Your task to perform on an android device: change text size in settings app Image 0: 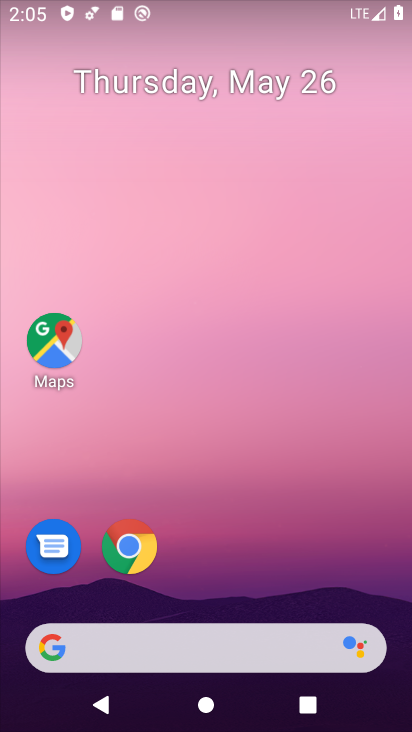
Step 0: drag from (260, 465) to (195, 2)
Your task to perform on an android device: change text size in settings app Image 1: 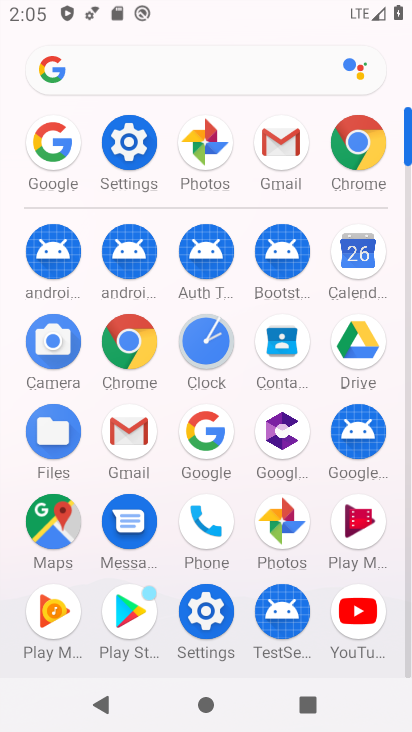
Step 1: click (227, 616)
Your task to perform on an android device: change text size in settings app Image 2: 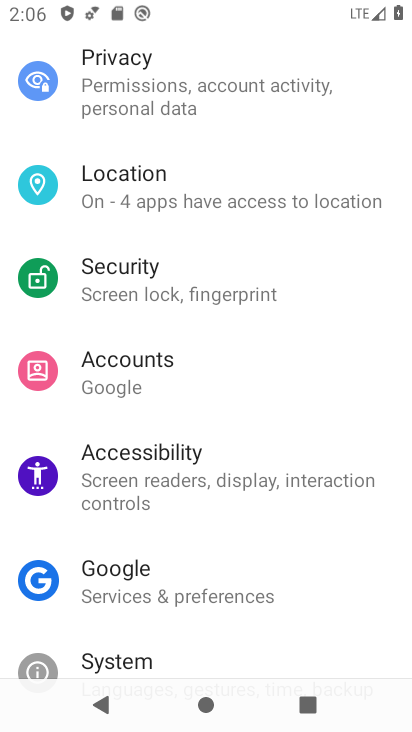
Step 2: drag from (250, 168) to (225, 728)
Your task to perform on an android device: change text size in settings app Image 3: 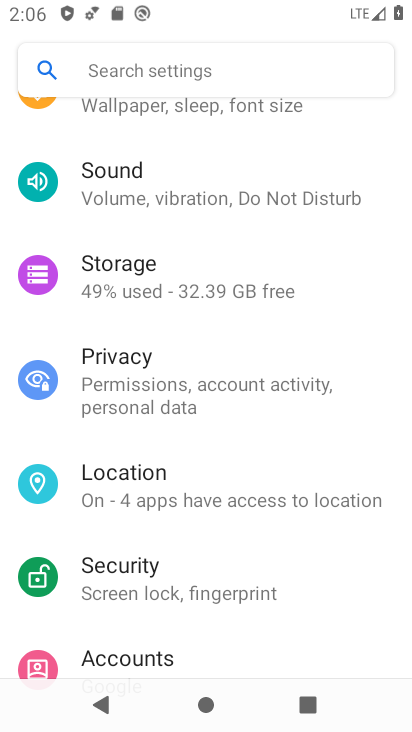
Step 3: drag from (196, 152) to (161, 640)
Your task to perform on an android device: change text size in settings app Image 4: 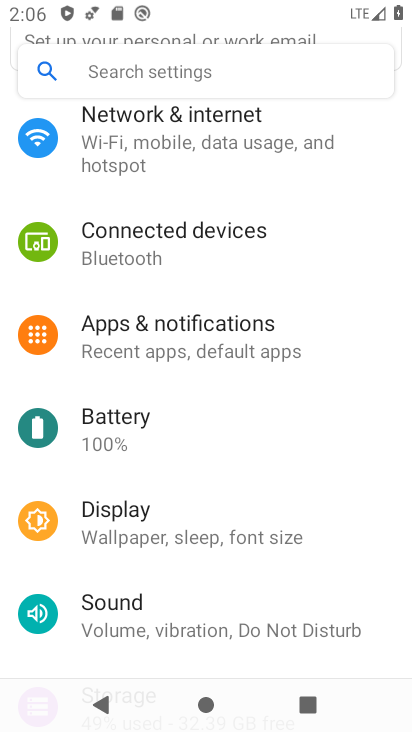
Step 4: click (159, 517)
Your task to perform on an android device: change text size in settings app Image 5: 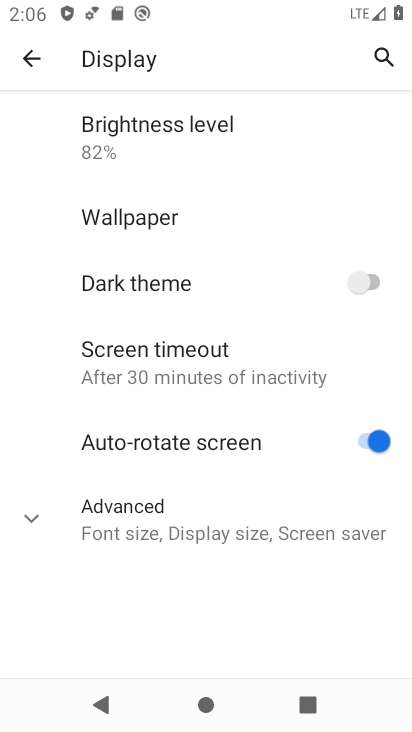
Step 5: click (182, 522)
Your task to perform on an android device: change text size in settings app Image 6: 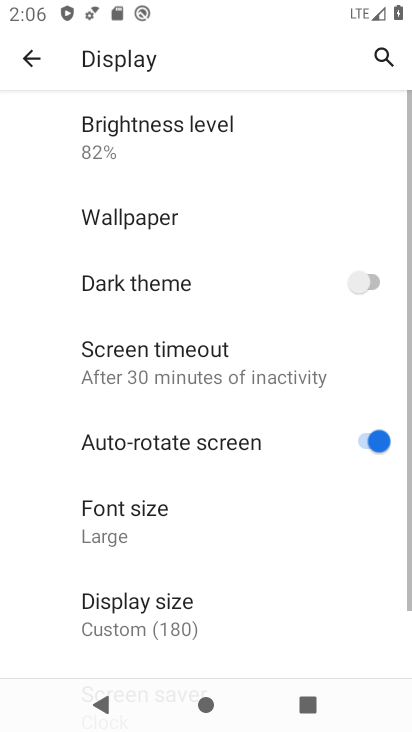
Step 6: click (178, 521)
Your task to perform on an android device: change text size in settings app Image 7: 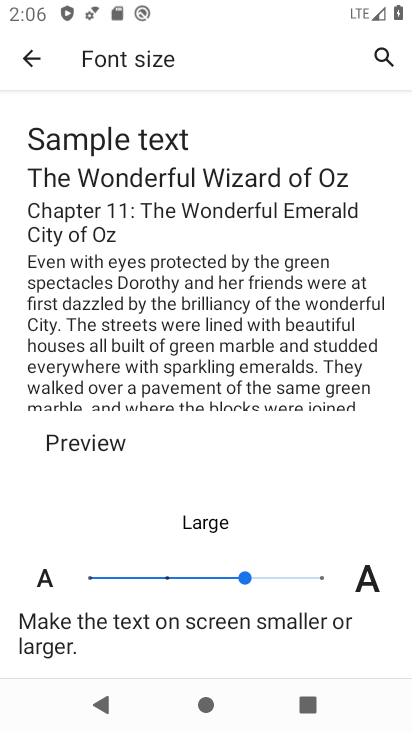
Step 7: click (168, 573)
Your task to perform on an android device: change text size in settings app Image 8: 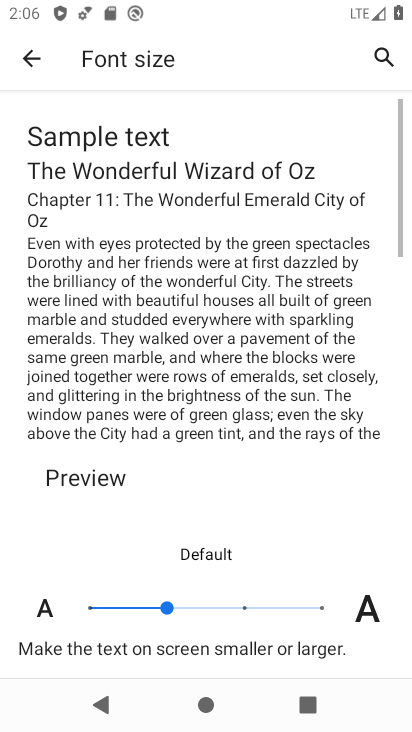
Step 8: click (91, 578)
Your task to perform on an android device: change text size in settings app Image 9: 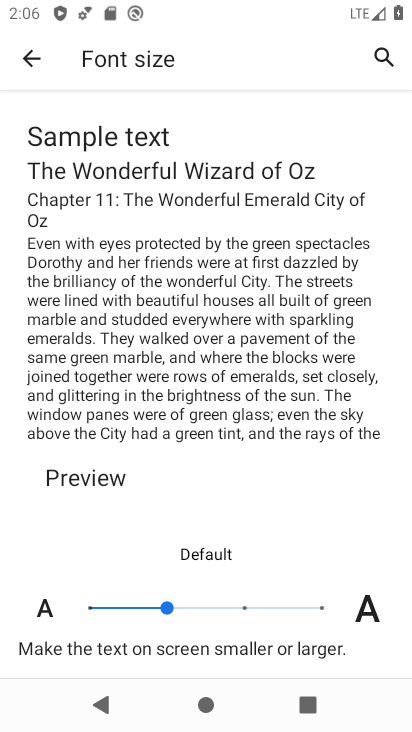
Step 9: task complete